Your task to perform on an android device: Go to accessibility settings Image 0: 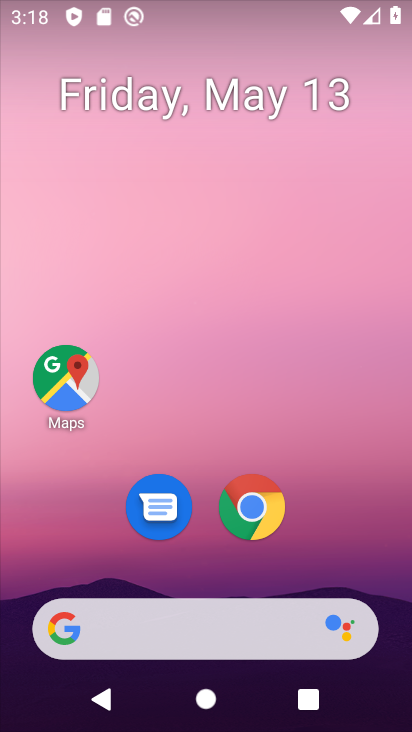
Step 0: drag from (324, 550) to (259, 1)
Your task to perform on an android device: Go to accessibility settings Image 1: 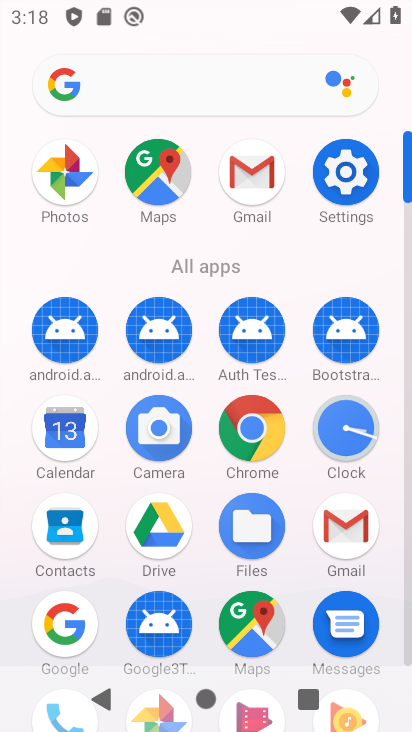
Step 1: click (340, 191)
Your task to perform on an android device: Go to accessibility settings Image 2: 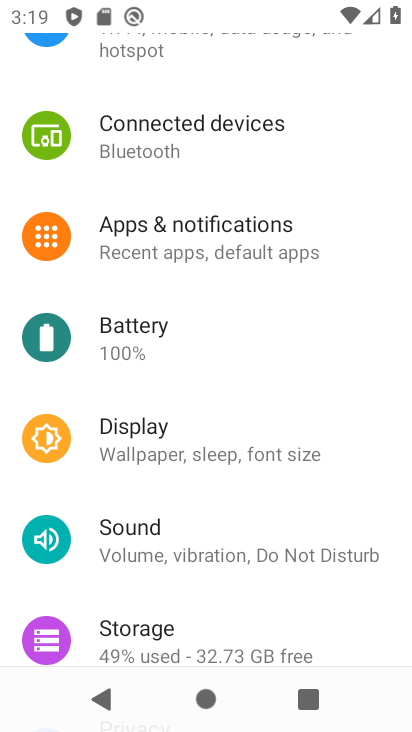
Step 2: drag from (255, 558) to (207, 142)
Your task to perform on an android device: Go to accessibility settings Image 3: 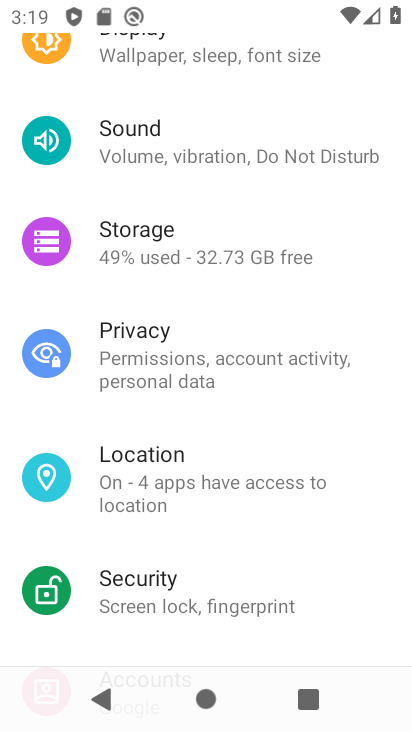
Step 3: drag from (192, 530) to (273, 130)
Your task to perform on an android device: Go to accessibility settings Image 4: 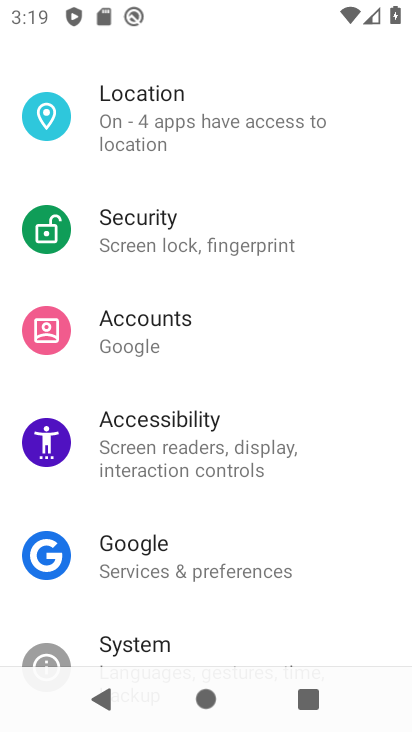
Step 4: click (200, 442)
Your task to perform on an android device: Go to accessibility settings Image 5: 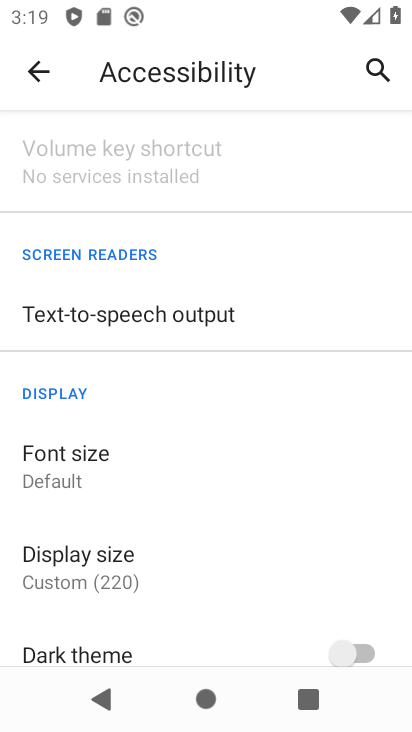
Step 5: task complete